Your task to perform on an android device: Is it going to rain tomorrow? Image 0: 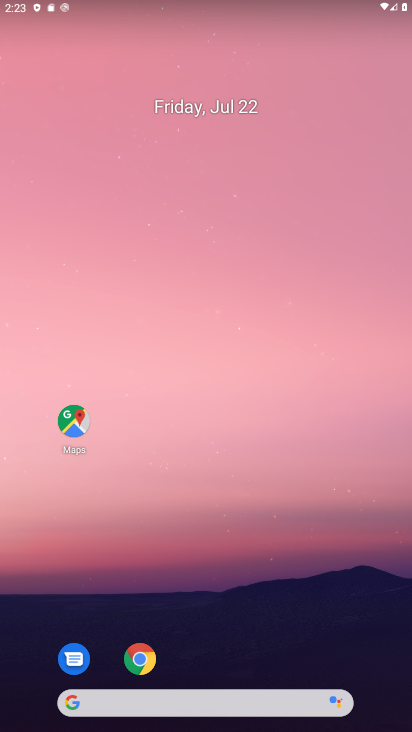
Step 0: drag from (302, 682) to (177, 60)
Your task to perform on an android device: Is it going to rain tomorrow? Image 1: 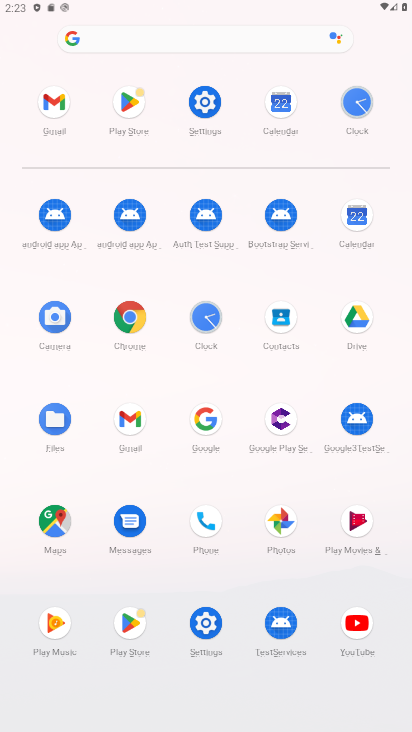
Step 1: click (237, 35)
Your task to perform on an android device: Is it going to rain tomorrow? Image 2: 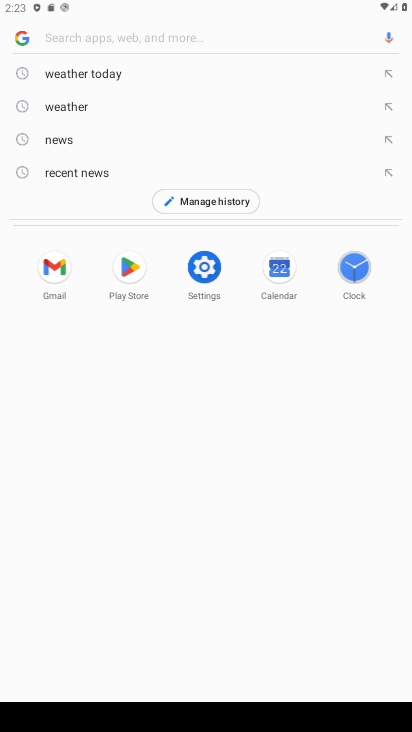
Step 2: click (101, 103)
Your task to perform on an android device: Is it going to rain tomorrow? Image 3: 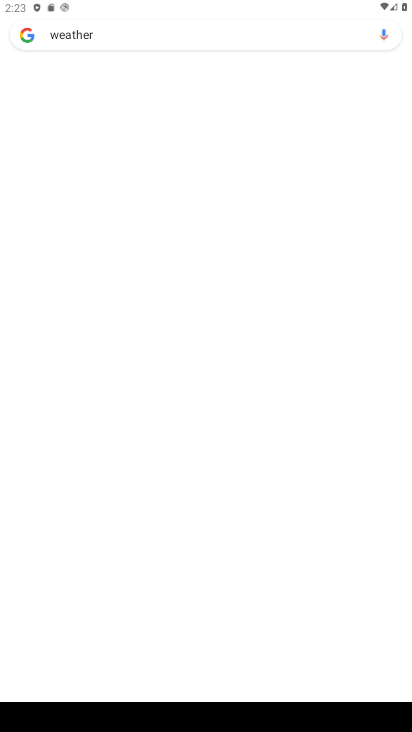
Step 3: task complete